Your task to perform on an android device: open device folders in google photos Image 0: 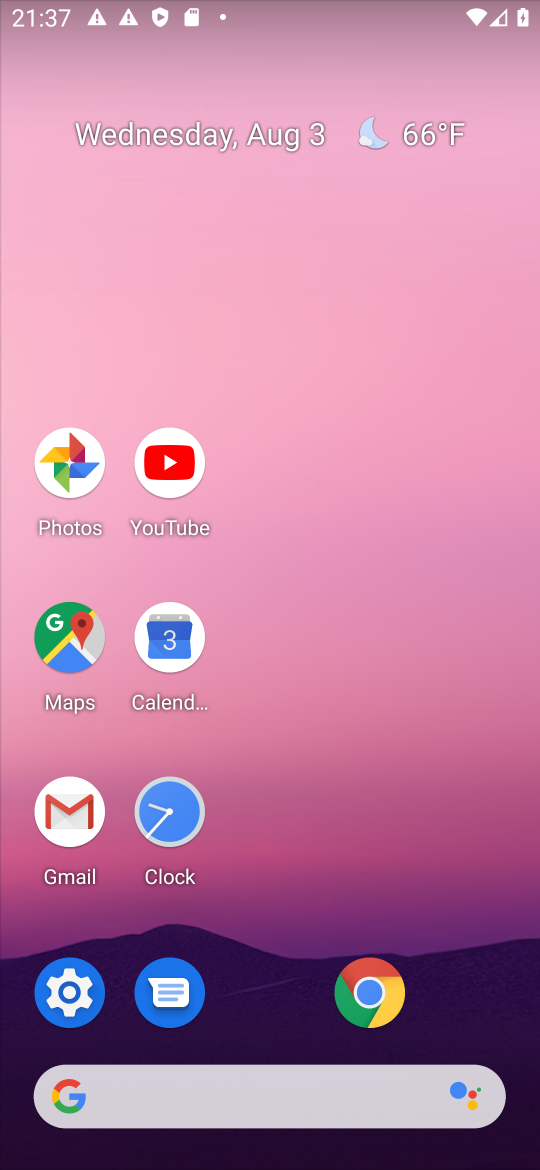
Step 0: click (74, 468)
Your task to perform on an android device: open device folders in google photos Image 1: 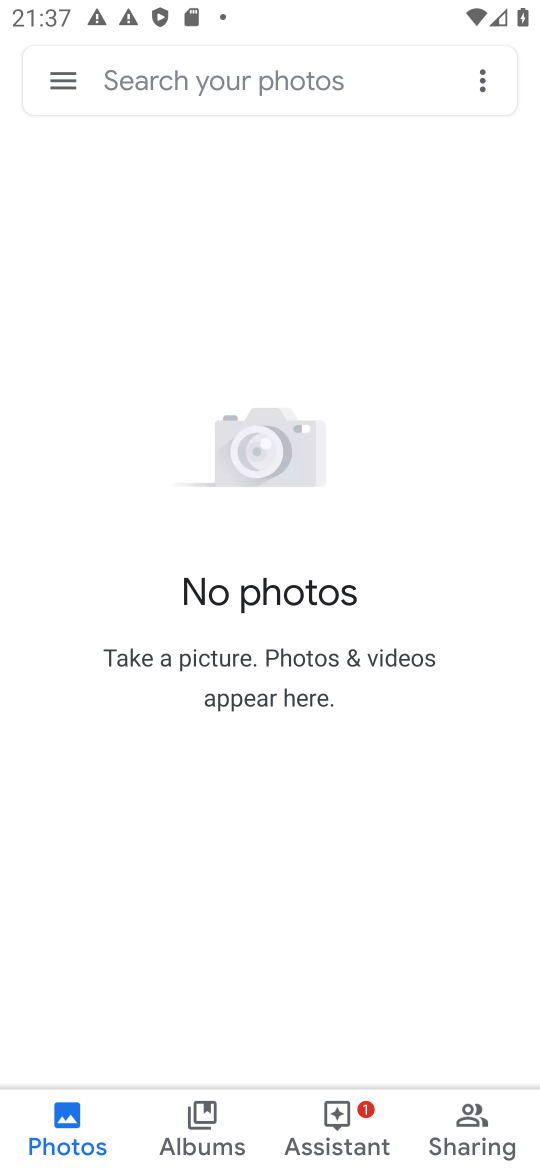
Step 1: click (49, 77)
Your task to perform on an android device: open device folders in google photos Image 2: 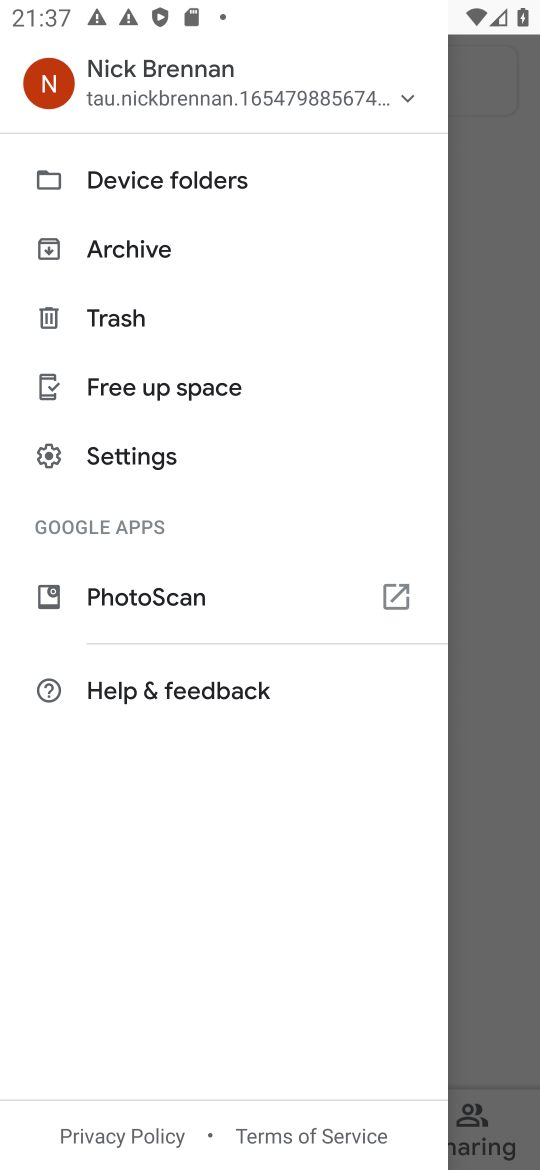
Step 2: click (174, 167)
Your task to perform on an android device: open device folders in google photos Image 3: 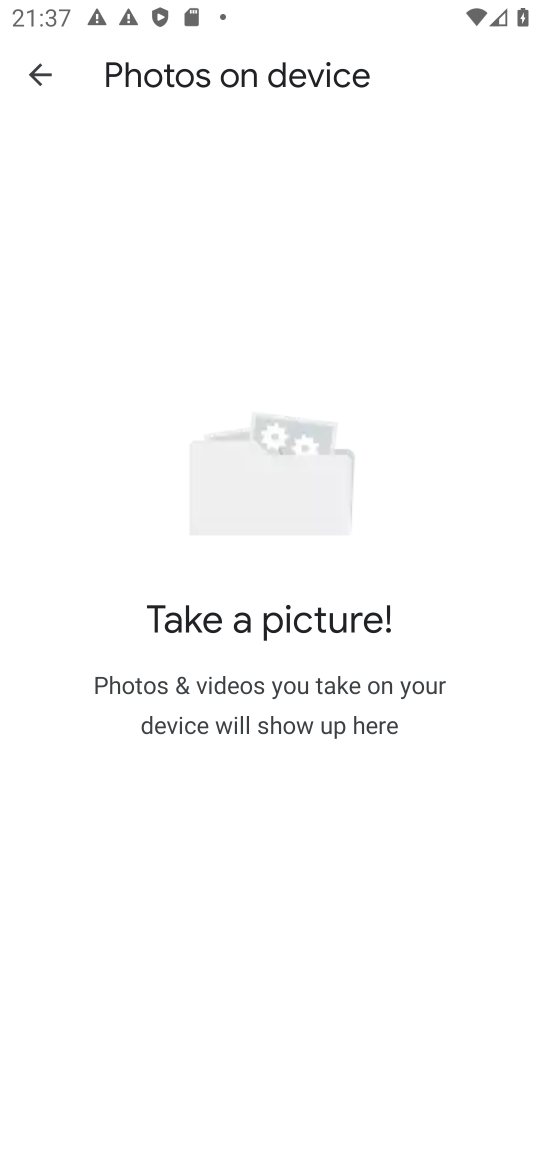
Step 3: task complete